Your task to perform on an android device: allow notifications from all sites in the chrome app Image 0: 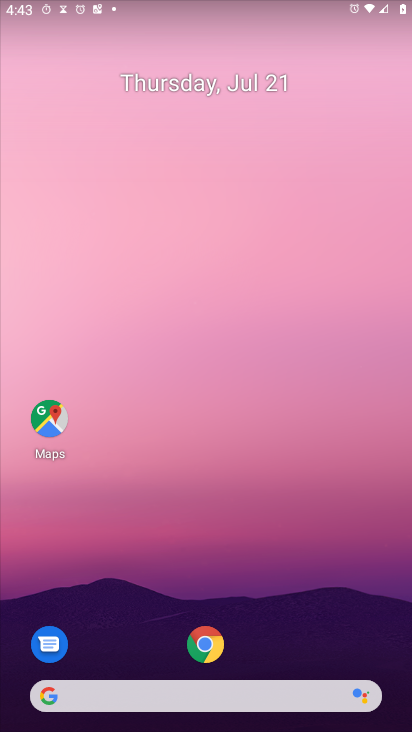
Step 0: press home button
Your task to perform on an android device: allow notifications from all sites in the chrome app Image 1: 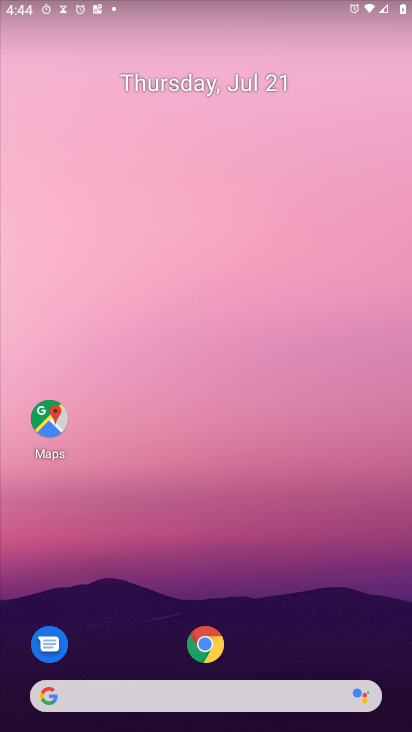
Step 1: drag from (283, 663) to (291, 76)
Your task to perform on an android device: allow notifications from all sites in the chrome app Image 2: 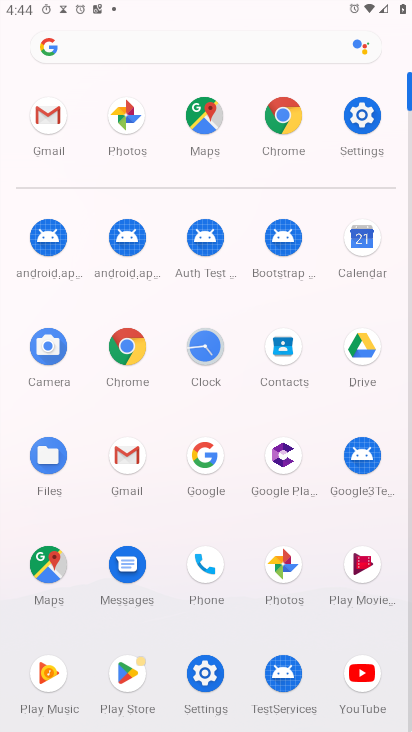
Step 2: click (279, 120)
Your task to perform on an android device: allow notifications from all sites in the chrome app Image 3: 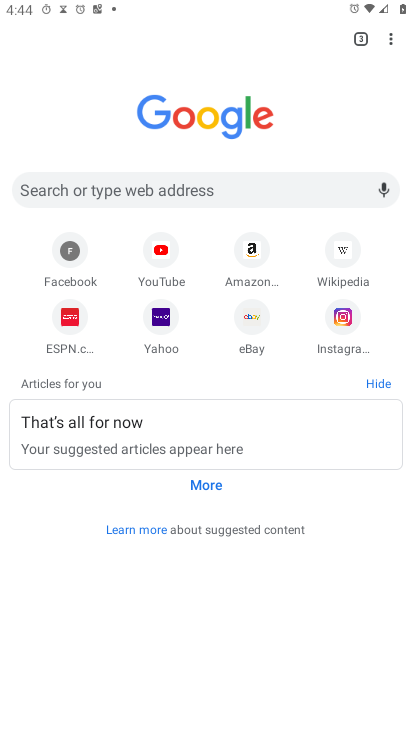
Step 3: drag from (387, 45) to (276, 392)
Your task to perform on an android device: allow notifications from all sites in the chrome app Image 4: 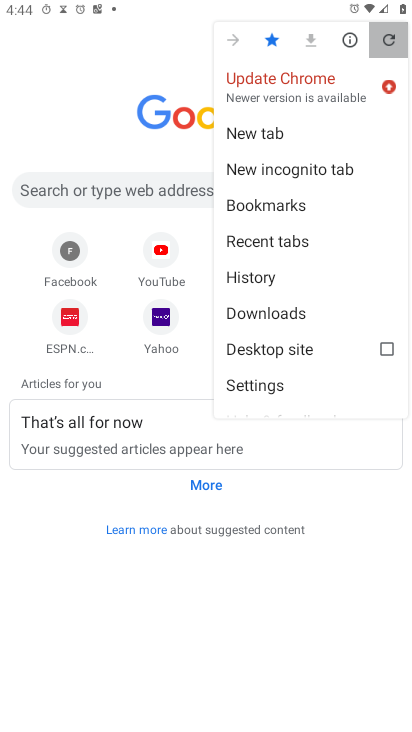
Step 4: click (277, 390)
Your task to perform on an android device: allow notifications from all sites in the chrome app Image 5: 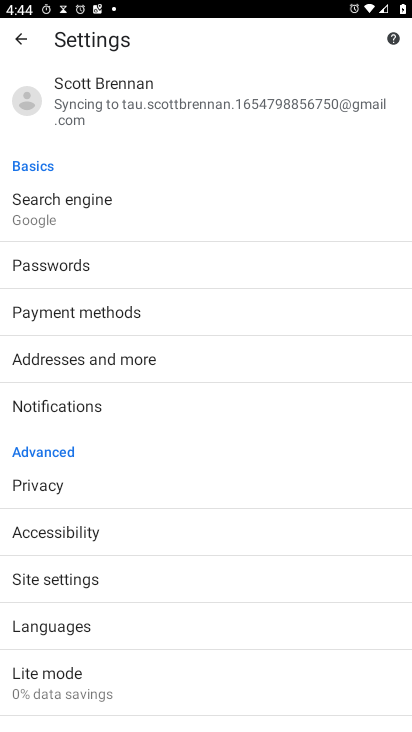
Step 5: click (44, 585)
Your task to perform on an android device: allow notifications from all sites in the chrome app Image 6: 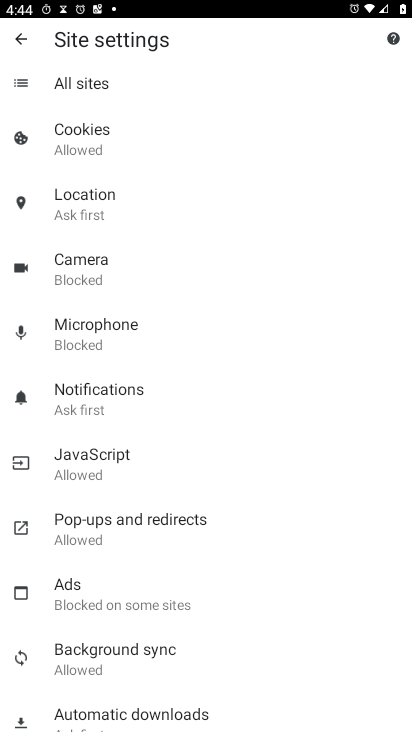
Step 6: click (99, 397)
Your task to perform on an android device: allow notifications from all sites in the chrome app Image 7: 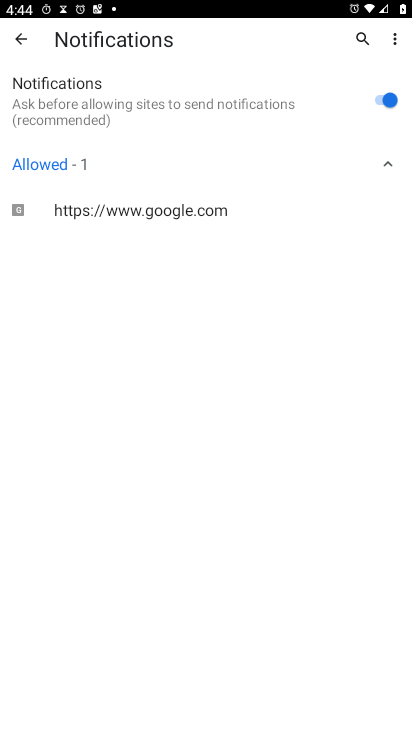
Step 7: task complete